Your task to perform on an android device: move an email to a new category in the gmail app Image 0: 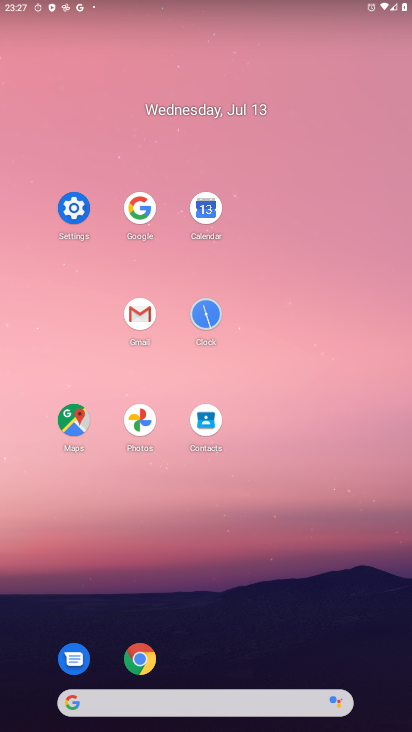
Step 0: click (148, 314)
Your task to perform on an android device: move an email to a new category in the gmail app Image 1: 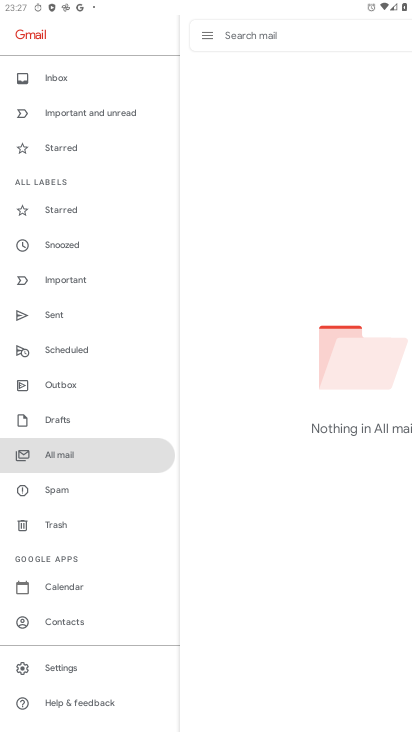
Step 1: task complete